Your task to perform on an android device: Open Yahoo.com Image 0: 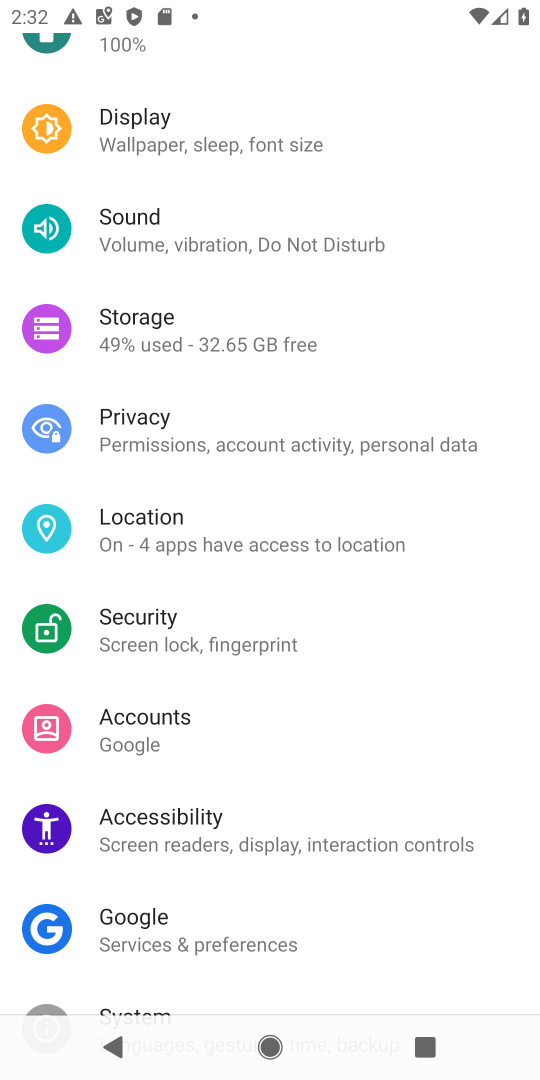
Step 0: press back button
Your task to perform on an android device: Open Yahoo.com Image 1: 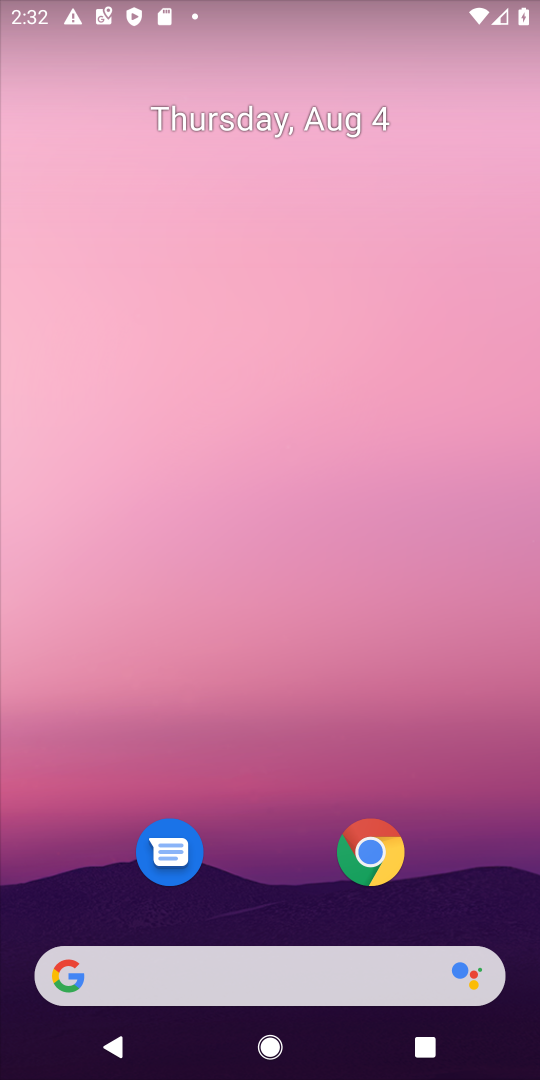
Step 1: click (362, 859)
Your task to perform on an android device: Open Yahoo.com Image 2: 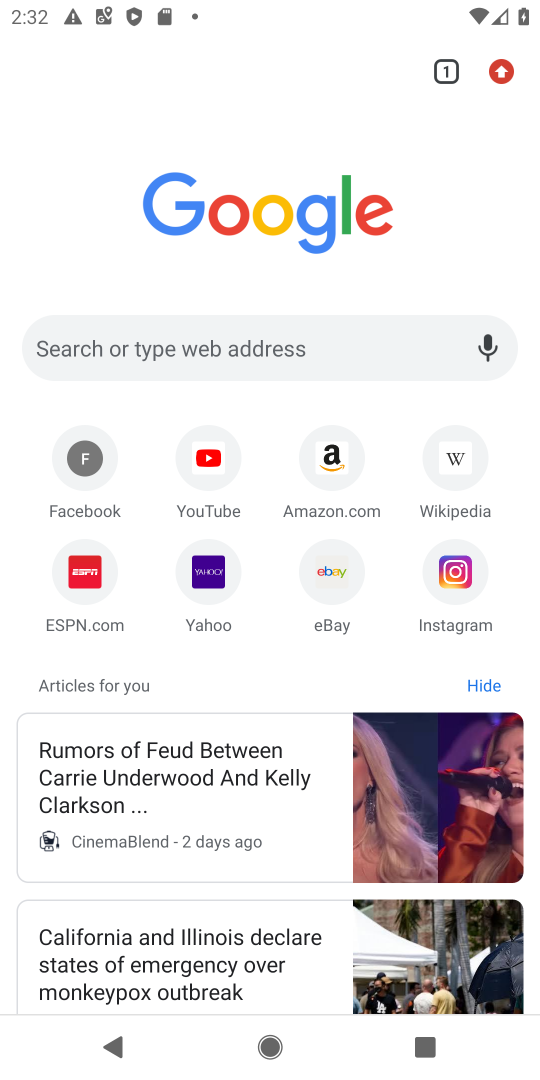
Step 2: click (193, 574)
Your task to perform on an android device: Open Yahoo.com Image 3: 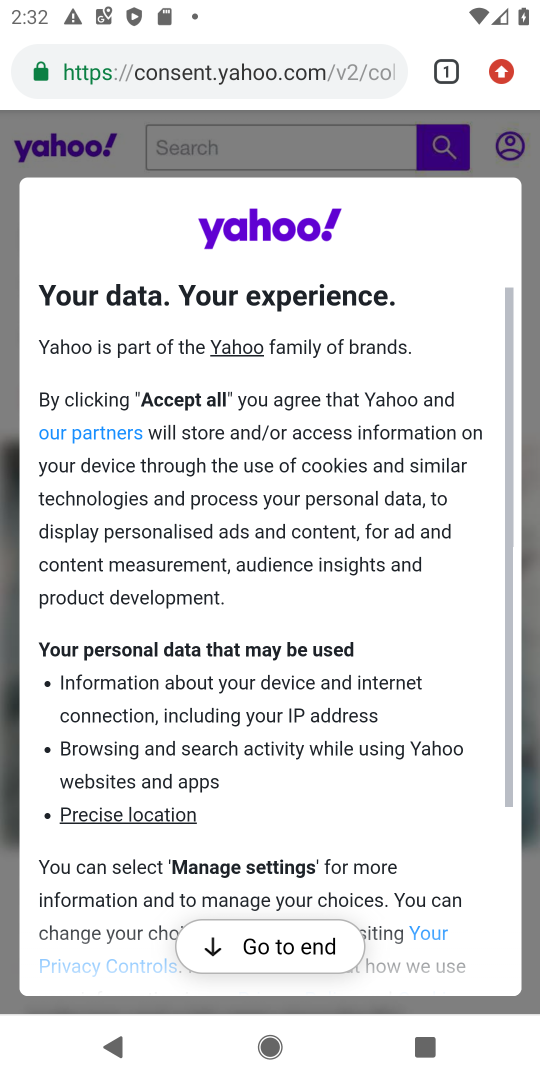
Step 3: task complete